Your task to perform on an android device: Open Chrome and go to settings Image 0: 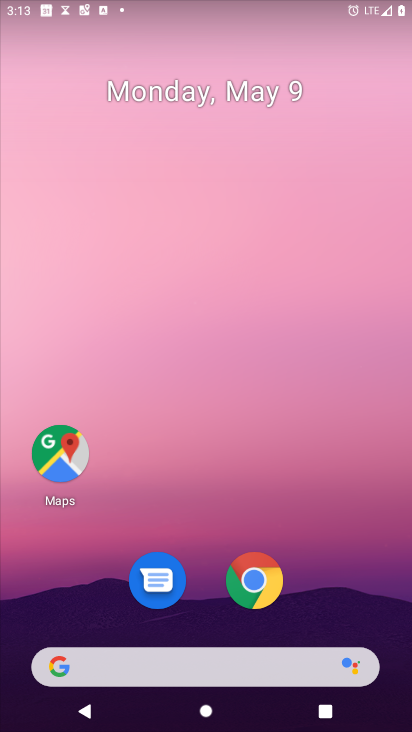
Step 0: click (264, 573)
Your task to perform on an android device: Open Chrome and go to settings Image 1: 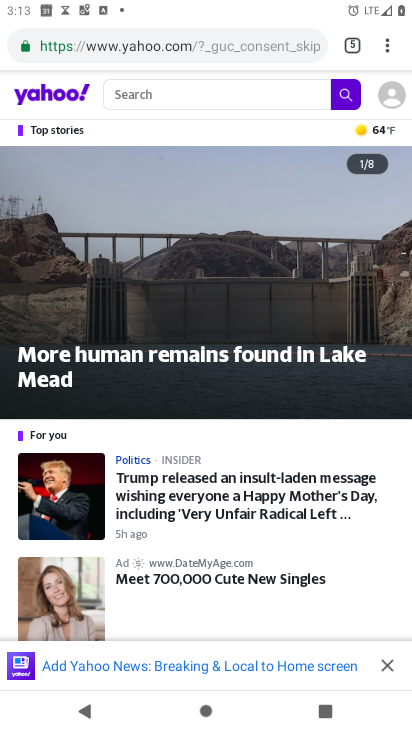
Step 1: click (387, 55)
Your task to perform on an android device: Open Chrome and go to settings Image 2: 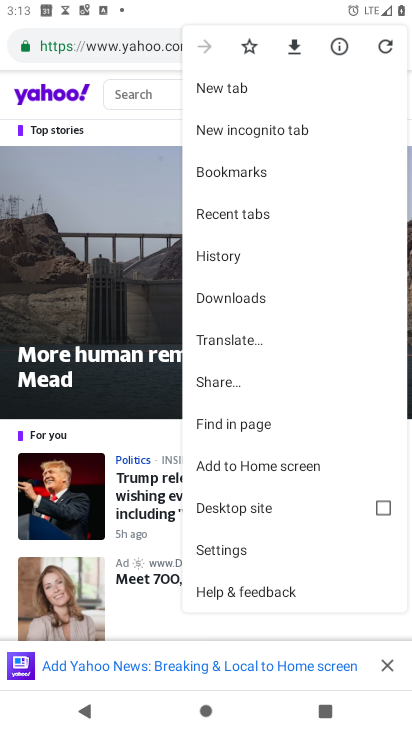
Step 2: click (245, 551)
Your task to perform on an android device: Open Chrome and go to settings Image 3: 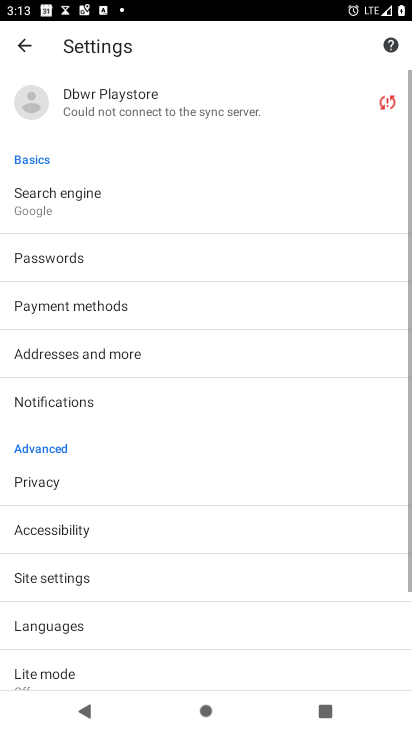
Step 3: task complete